Your task to perform on an android device: change alarm snooze length Image 0: 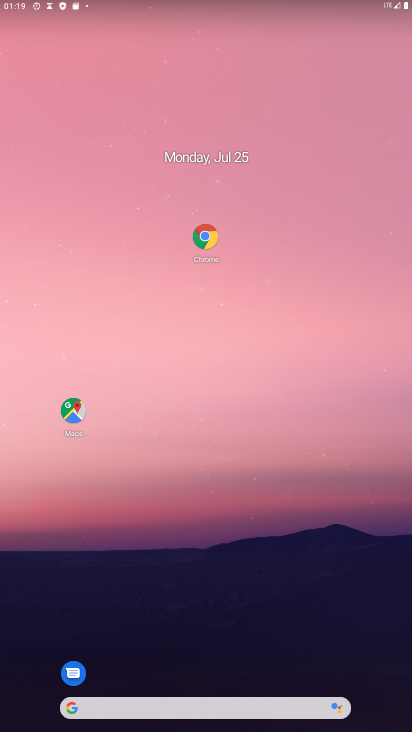
Step 0: drag from (255, 702) to (285, 32)
Your task to perform on an android device: change alarm snooze length Image 1: 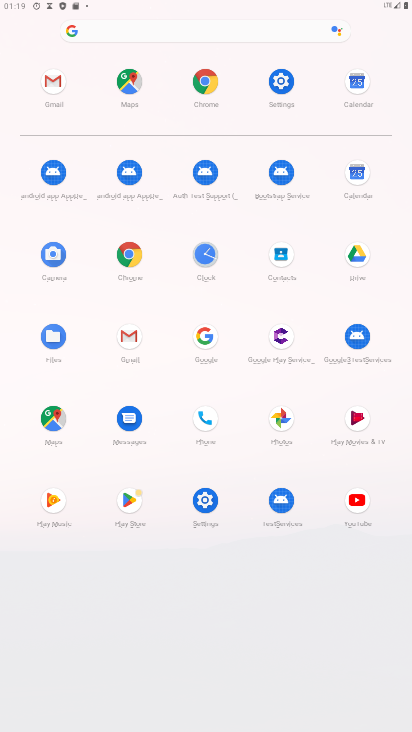
Step 1: click (219, 255)
Your task to perform on an android device: change alarm snooze length Image 2: 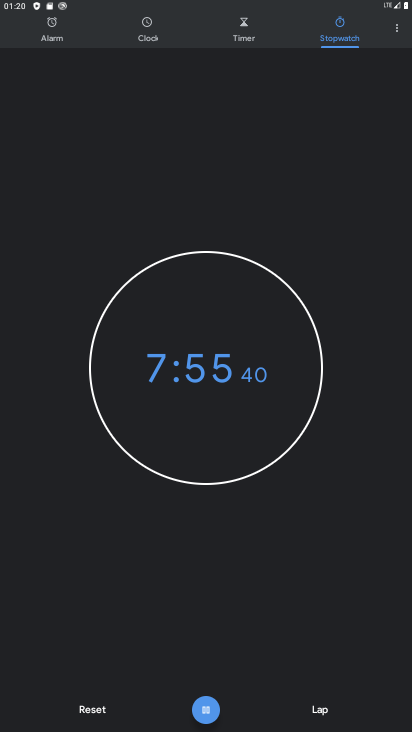
Step 2: click (400, 25)
Your task to perform on an android device: change alarm snooze length Image 3: 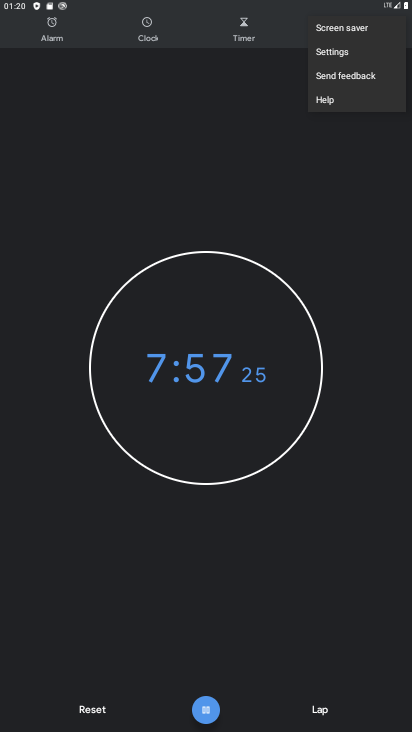
Step 3: click (332, 57)
Your task to perform on an android device: change alarm snooze length Image 4: 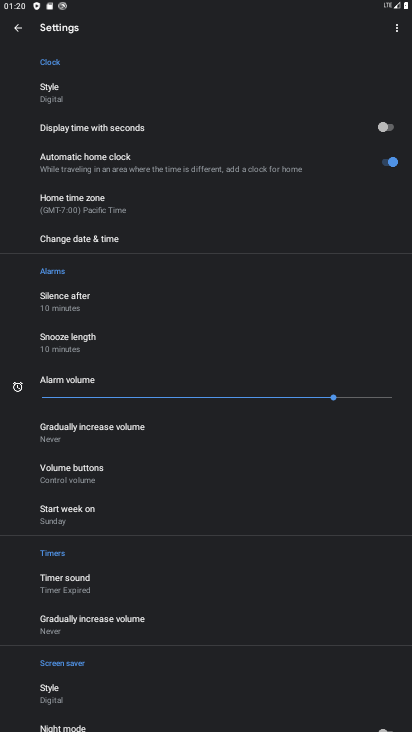
Step 4: drag from (131, 632) to (167, 414)
Your task to perform on an android device: change alarm snooze length Image 5: 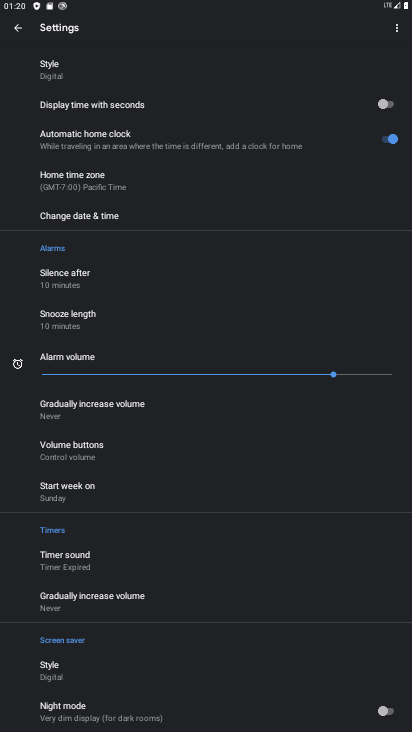
Step 5: click (93, 326)
Your task to perform on an android device: change alarm snooze length Image 6: 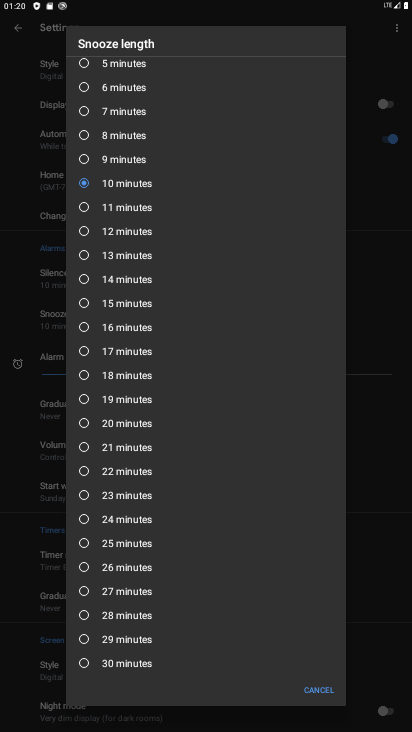
Step 6: click (83, 207)
Your task to perform on an android device: change alarm snooze length Image 7: 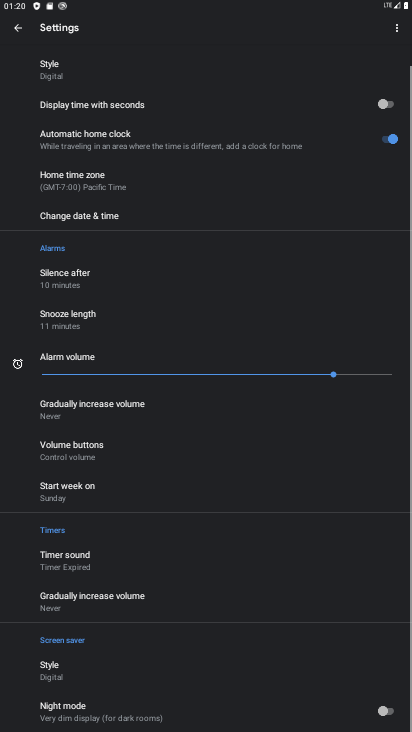
Step 7: task complete